Your task to perform on an android device: find photos in the google photos app Image 0: 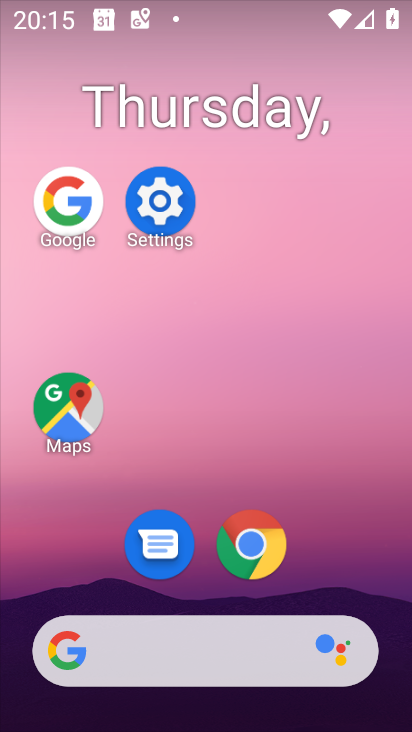
Step 0: drag from (215, 651) to (250, 229)
Your task to perform on an android device: find photos in the google photos app Image 1: 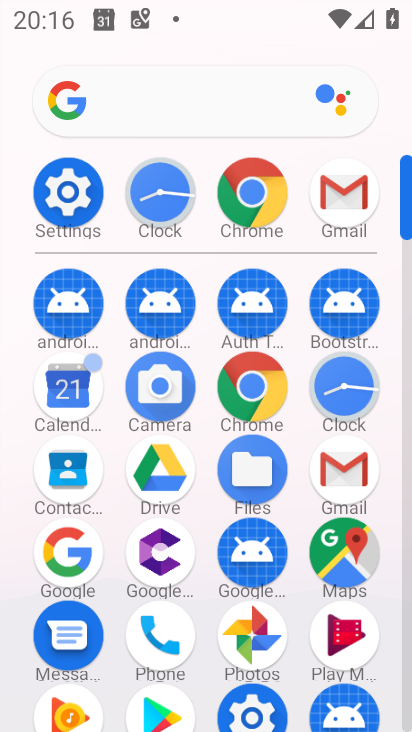
Step 1: click (257, 629)
Your task to perform on an android device: find photos in the google photos app Image 2: 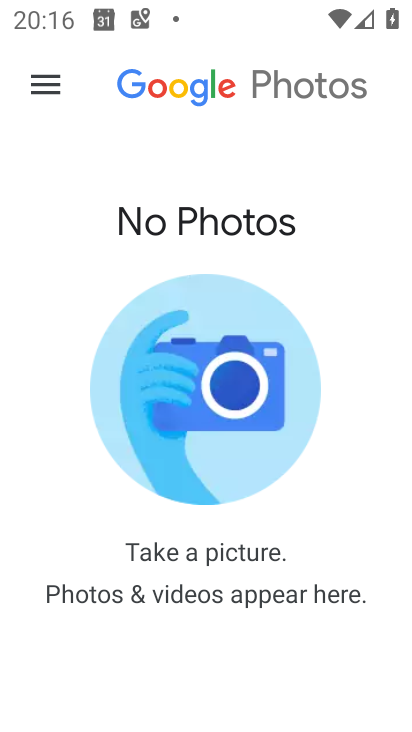
Step 2: click (58, 96)
Your task to perform on an android device: find photos in the google photos app Image 3: 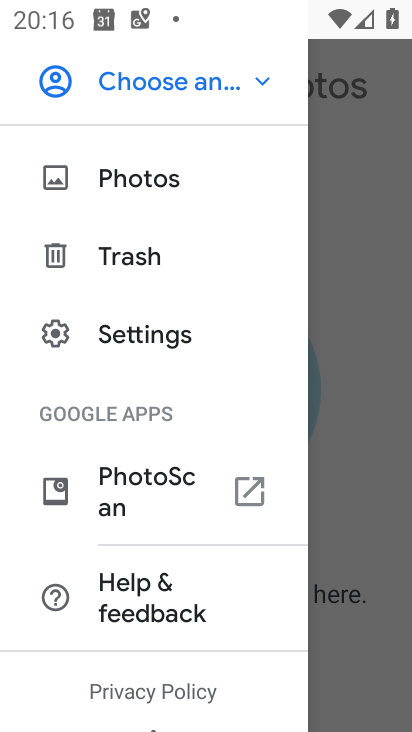
Step 3: click (159, 174)
Your task to perform on an android device: find photos in the google photos app Image 4: 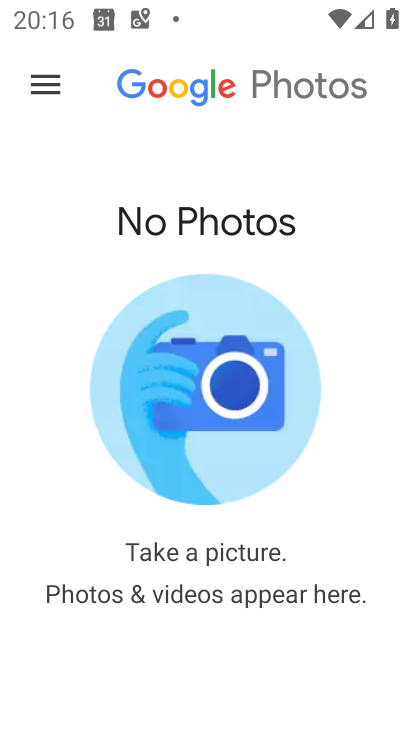
Step 4: task complete